Your task to perform on an android device: Open display settings Image 0: 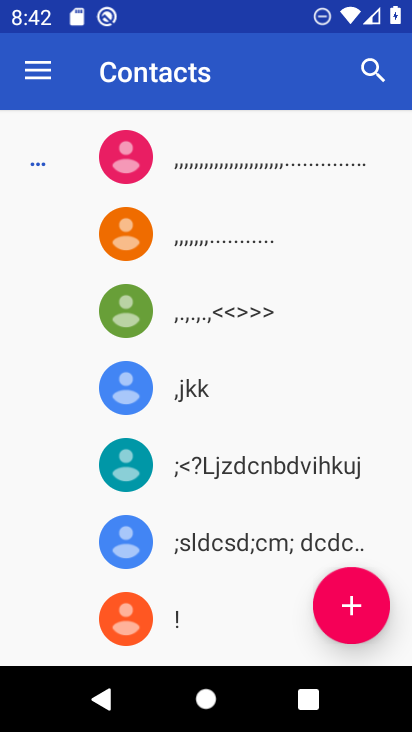
Step 0: press home button
Your task to perform on an android device: Open display settings Image 1: 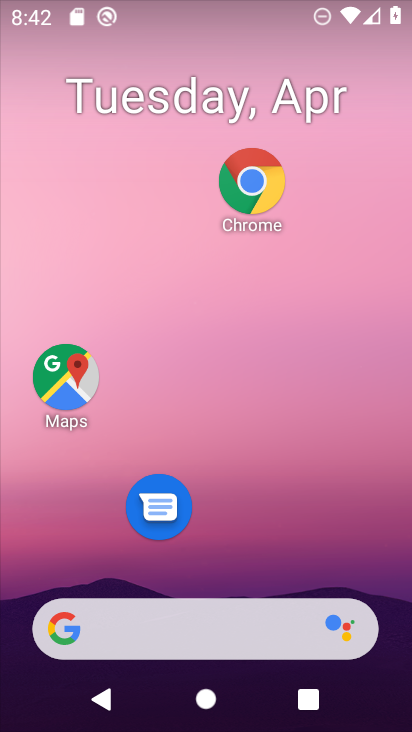
Step 1: drag from (220, 568) to (231, 110)
Your task to perform on an android device: Open display settings Image 2: 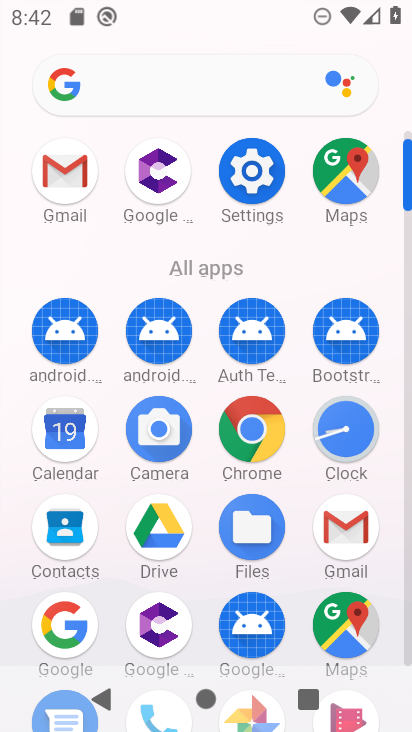
Step 2: click (246, 155)
Your task to perform on an android device: Open display settings Image 3: 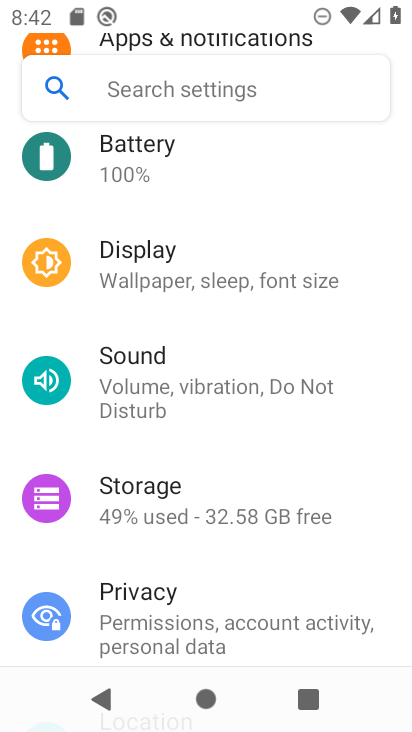
Step 3: click (223, 275)
Your task to perform on an android device: Open display settings Image 4: 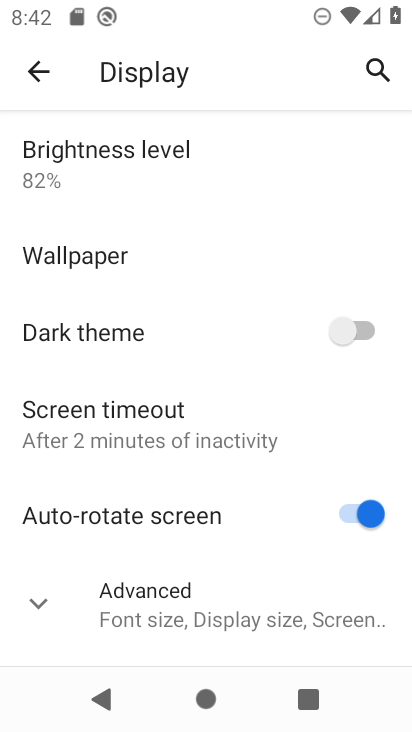
Step 4: task complete